Your task to perform on an android device: Go to ESPN.com Image 0: 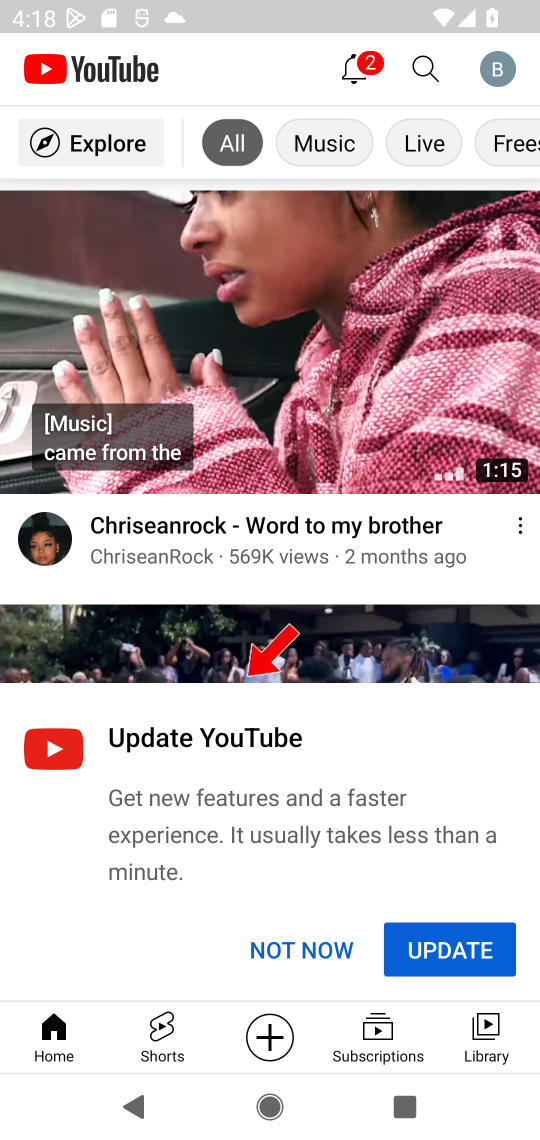
Step 0: press home button
Your task to perform on an android device: Go to ESPN.com Image 1: 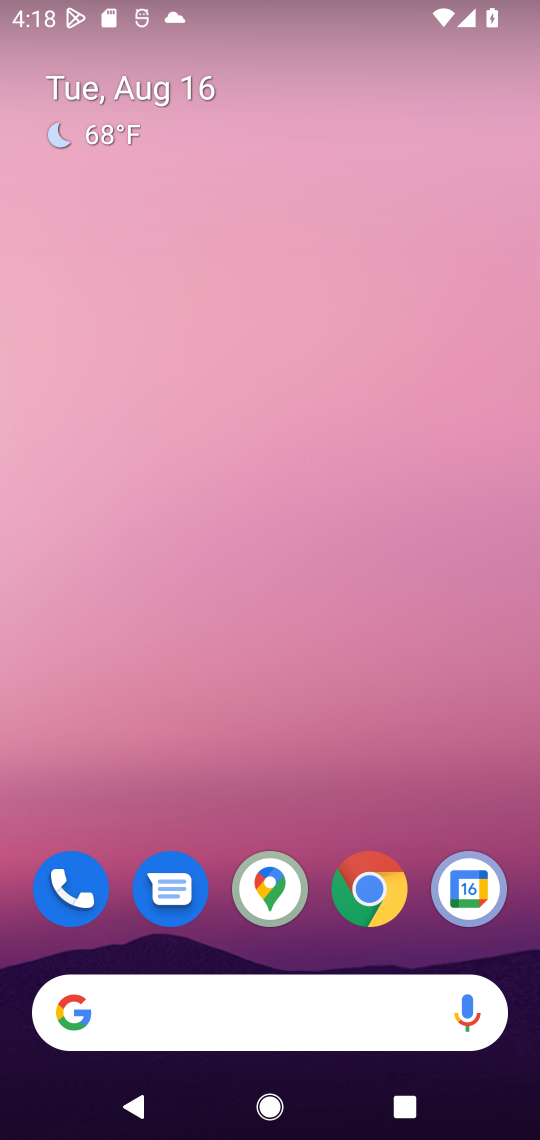
Step 1: click (369, 872)
Your task to perform on an android device: Go to ESPN.com Image 2: 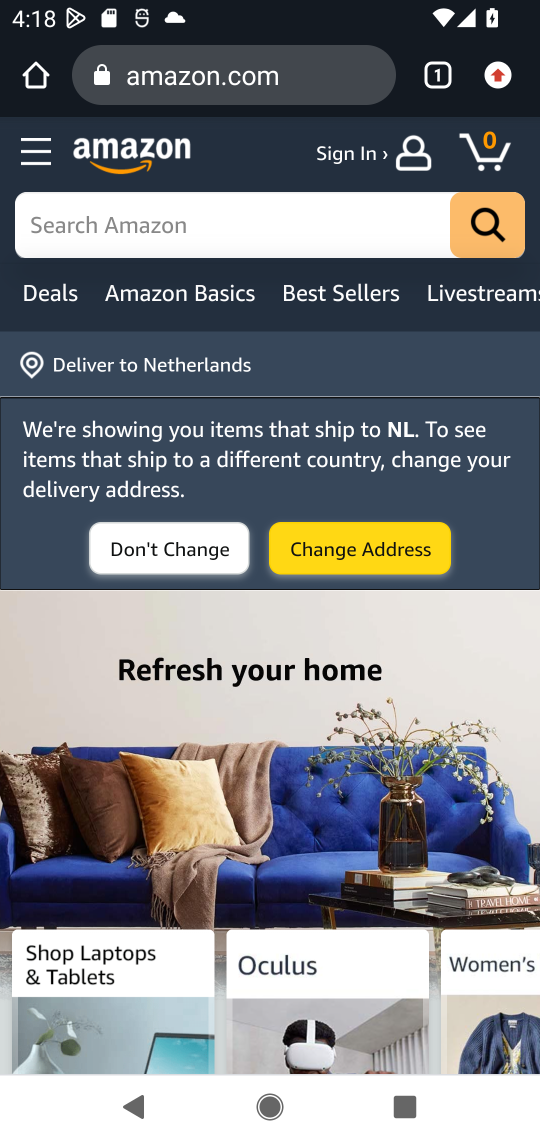
Step 2: click (268, 76)
Your task to perform on an android device: Go to ESPN.com Image 3: 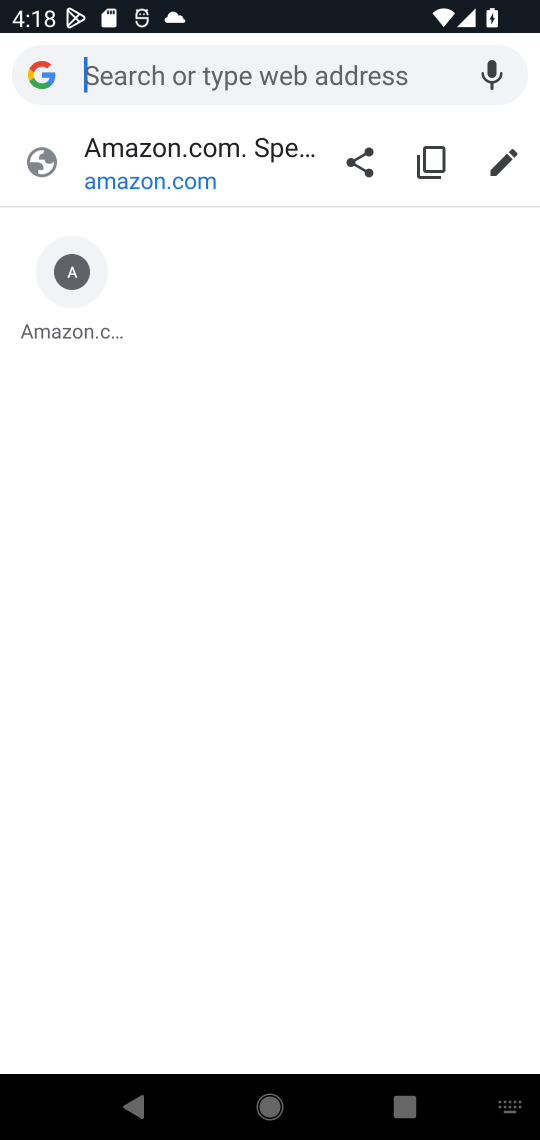
Step 3: type "ESPN.com"
Your task to perform on an android device: Go to ESPN.com Image 4: 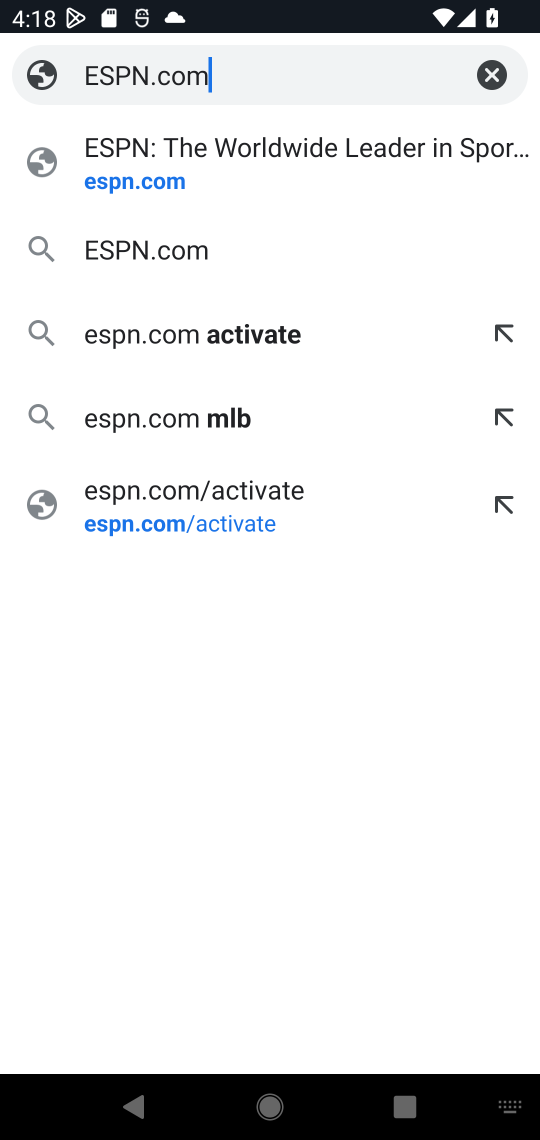
Step 4: press enter
Your task to perform on an android device: Go to ESPN.com Image 5: 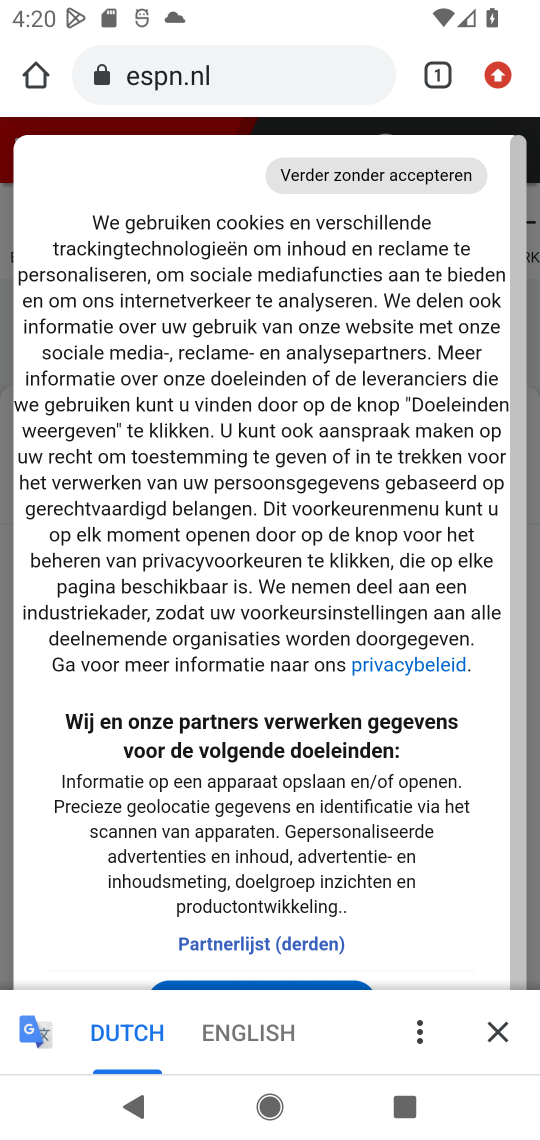
Step 5: task complete